Your task to perform on an android device: open device folders in google photos Image 0: 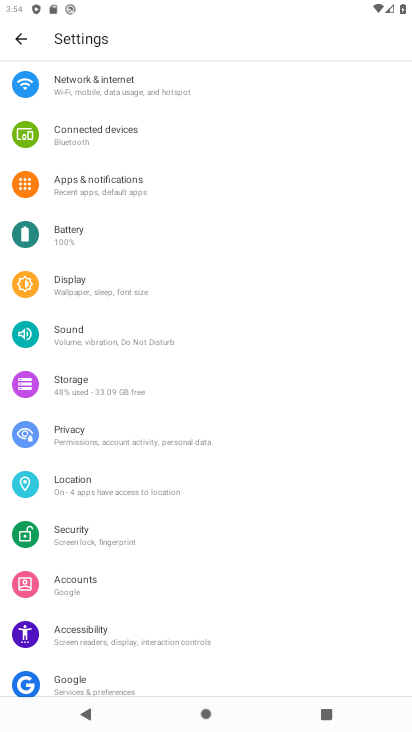
Step 0: press home button
Your task to perform on an android device: open device folders in google photos Image 1: 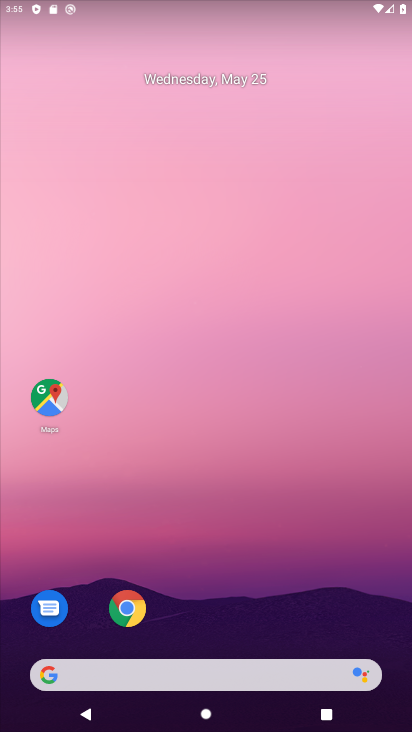
Step 1: drag from (218, 602) to (196, 78)
Your task to perform on an android device: open device folders in google photos Image 2: 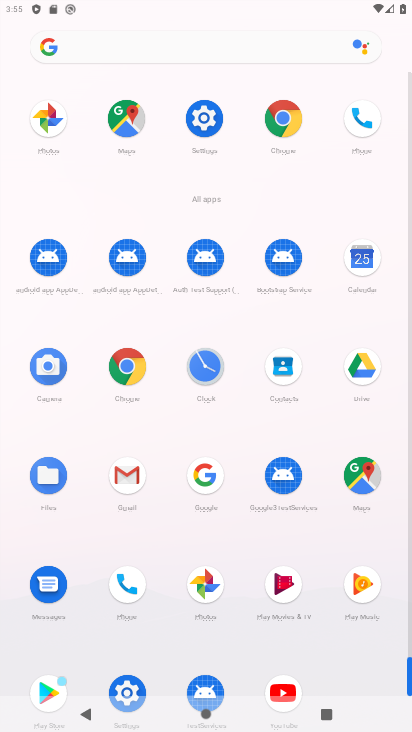
Step 2: click (47, 119)
Your task to perform on an android device: open device folders in google photos Image 3: 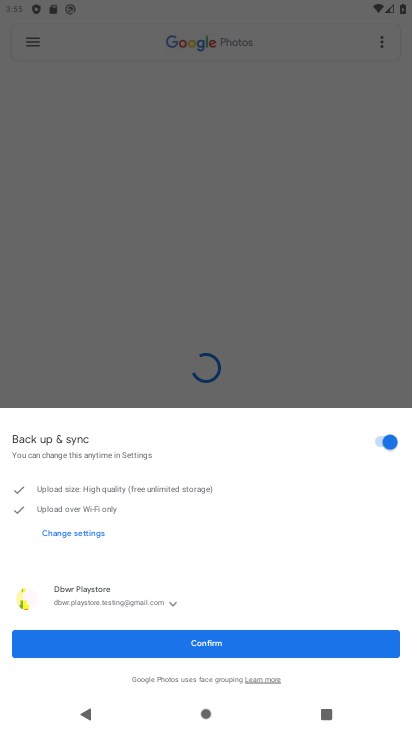
Step 3: click (210, 642)
Your task to perform on an android device: open device folders in google photos Image 4: 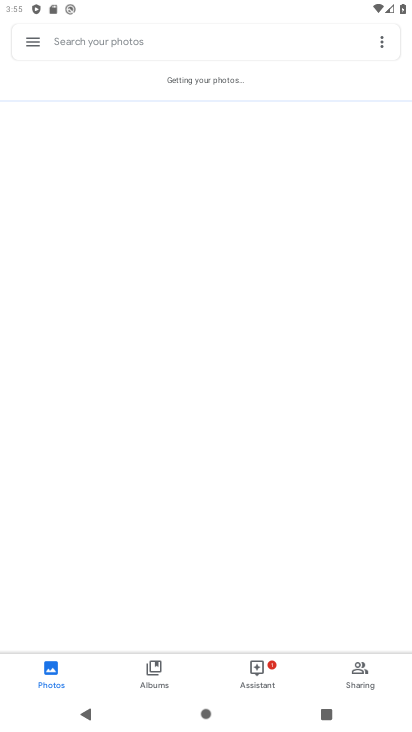
Step 4: click (34, 43)
Your task to perform on an android device: open device folders in google photos Image 5: 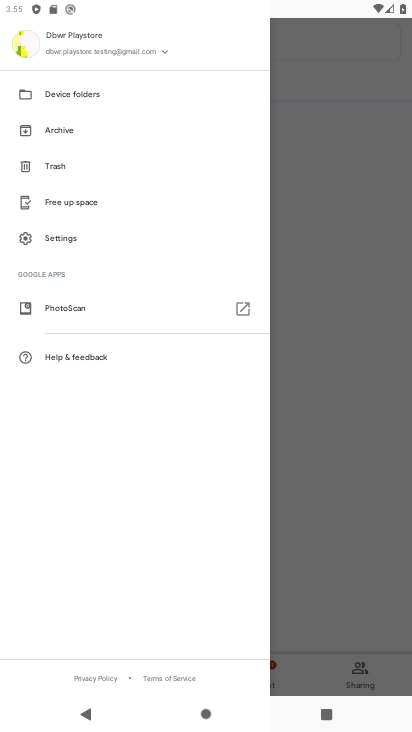
Step 5: click (76, 95)
Your task to perform on an android device: open device folders in google photos Image 6: 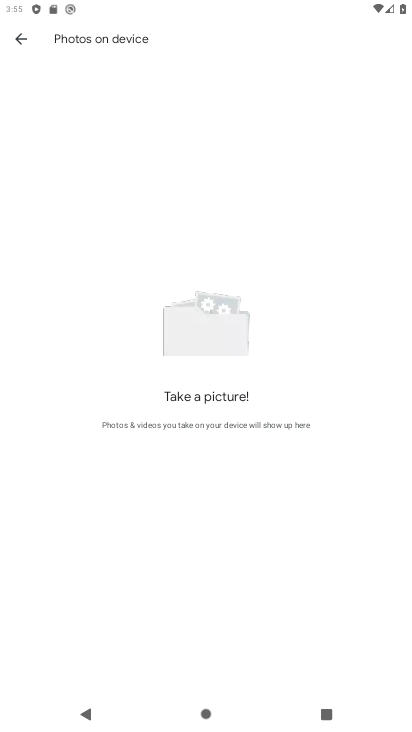
Step 6: task complete